Your task to perform on an android device: allow cookies in the chrome app Image 0: 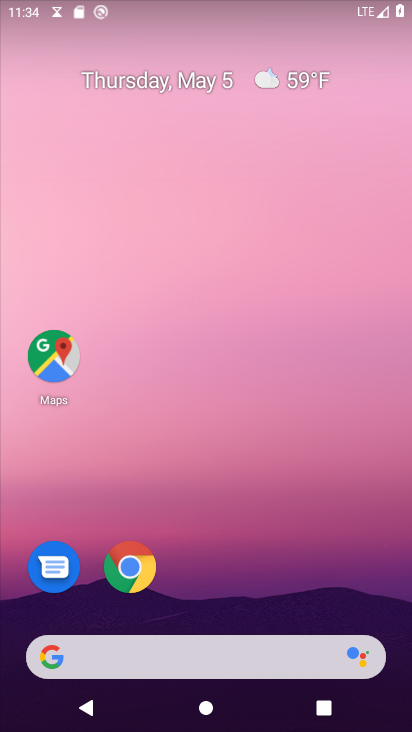
Step 0: click (132, 568)
Your task to perform on an android device: allow cookies in the chrome app Image 1: 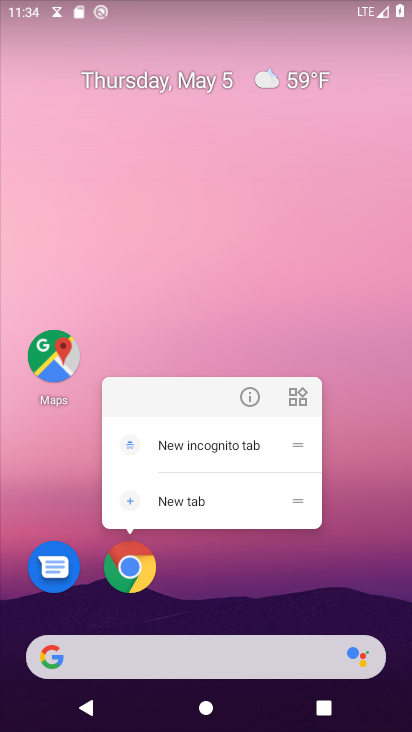
Step 1: click (134, 565)
Your task to perform on an android device: allow cookies in the chrome app Image 2: 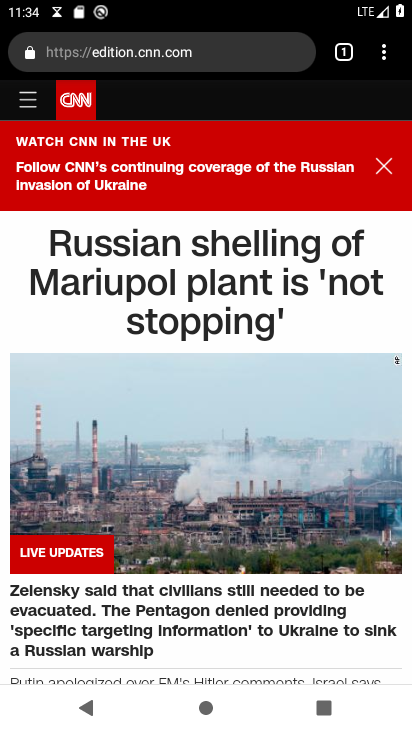
Step 2: drag from (383, 55) to (227, 574)
Your task to perform on an android device: allow cookies in the chrome app Image 3: 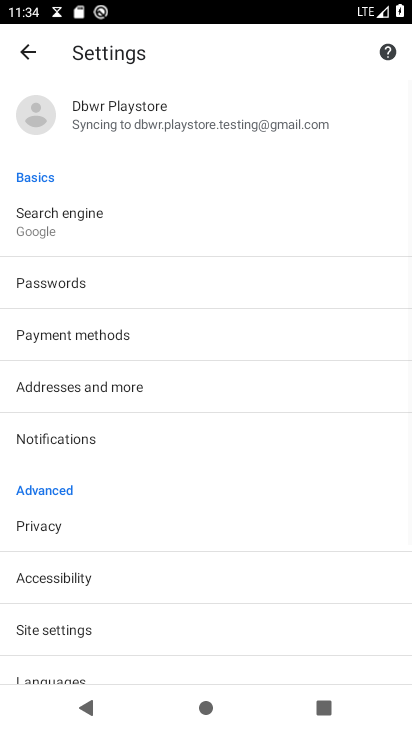
Step 3: click (61, 631)
Your task to perform on an android device: allow cookies in the chrome app Image 4: 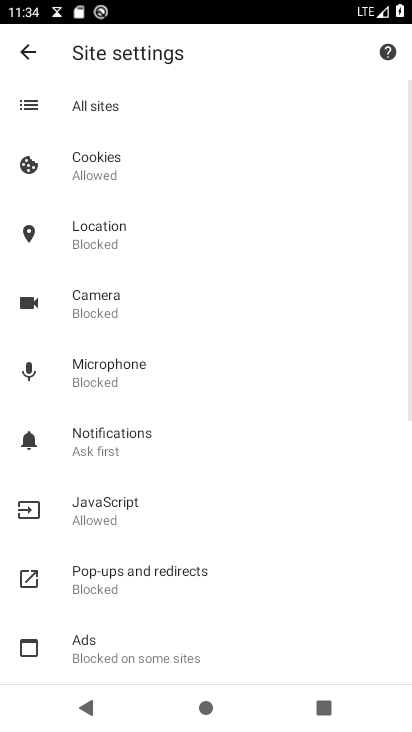
Step 4: click (104, 167)
Your task to perform on an android device: allow cookies in the chrome app Image 5: 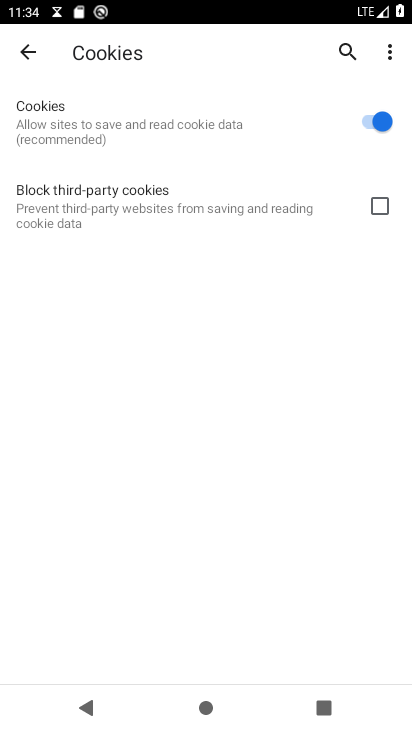
Step 5: task complete